Your task to perform on an android device: Open notification settings Image 0: 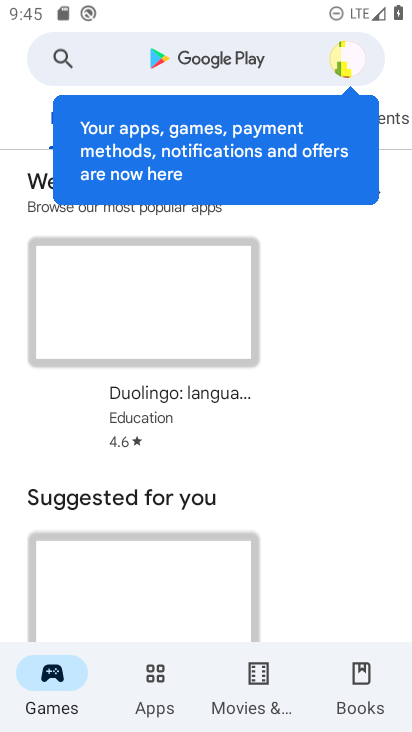
Step 0: press home button
Your task to perform on an android device: Open notification settings Image 1: 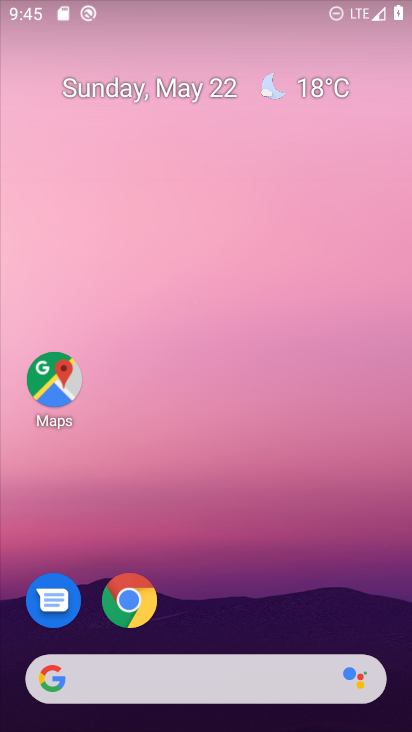
Step 1: drag from (380, 617) to (300, 27)
Your task to perform on an android device: Open notification settings Image 2: 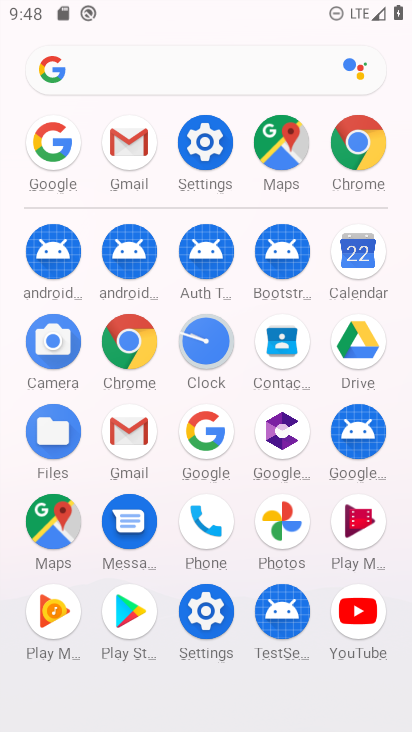
Step 2: click (211, 624)
Your task to perform on an android device: Open notification settings Image 3: 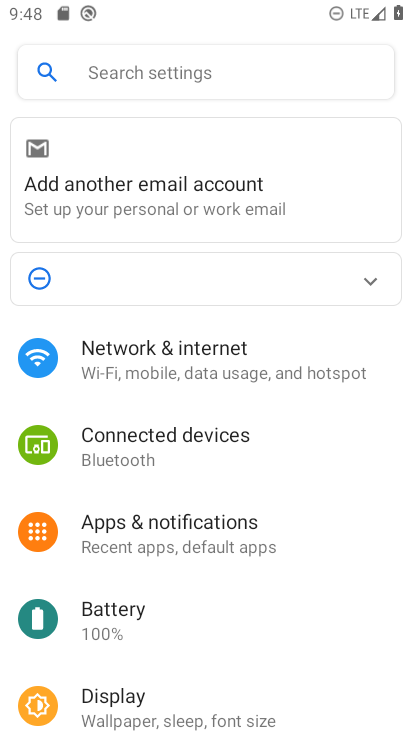
Step 3: click (250, 516)
Your task to perform on an android device: Open notification settings Image 4: 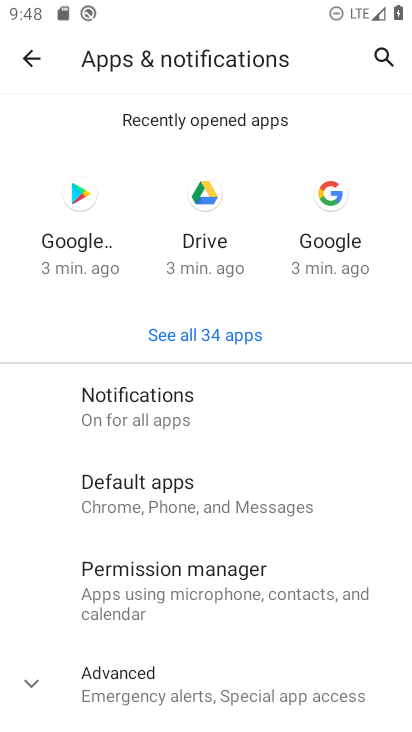
Step 4: click (195, 404)
Your task to perform on an android device: Open notification settings Image 5: 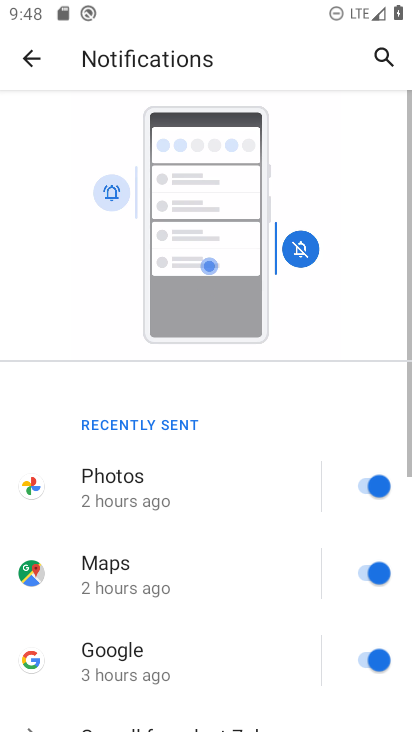
Step 5: task complete